Your task to perform on an android device: Set the phone to "Do not disturb". Image 0: 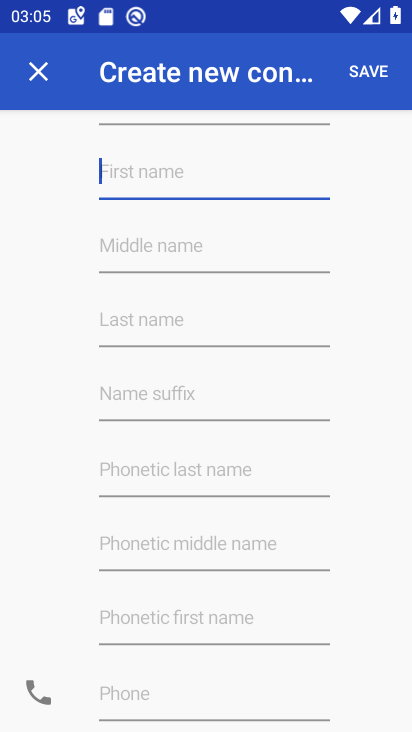
Step 0: press home button
Your task to perform on an android device: Set the phone to "Do not disturb". Image 1: 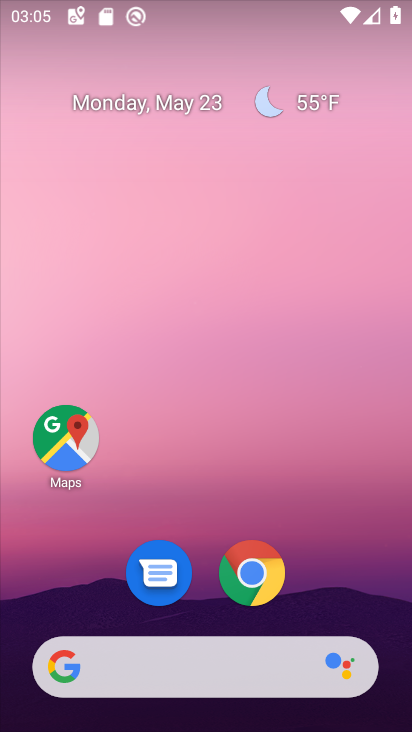
Step 1: drag from (320, 592) to (325, 23)
Your task to perform on an android device: Set the phone to "Do not disturb". Image 2: 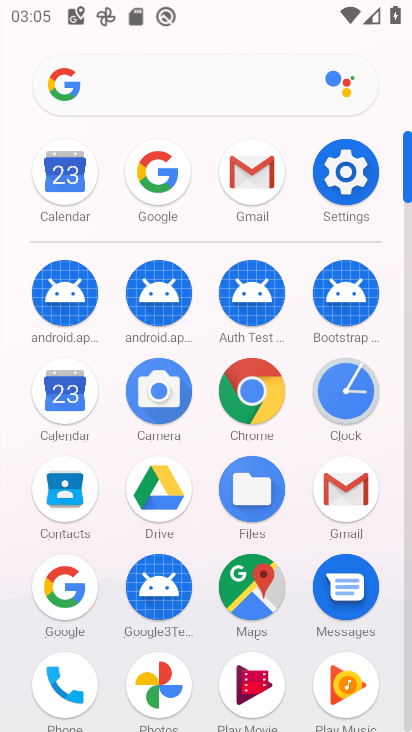
Step 2: click (344, 183)
Your task to perform on an android device: Set the phone to "Do not disturb". Image 3: 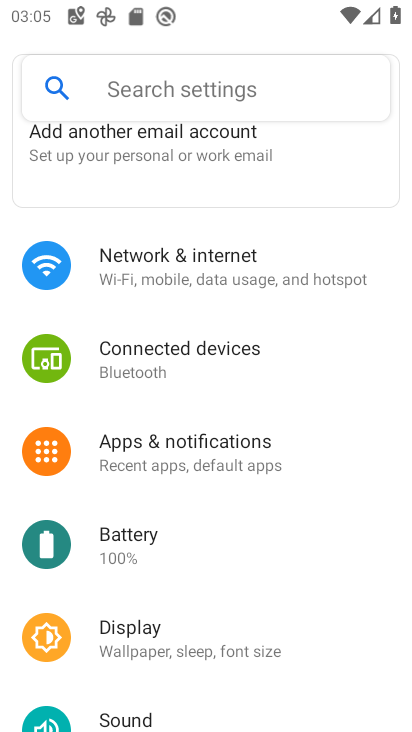
Step 3: click (162, 718)
Your task to perform on an android device: Set the phone to "Do not disturb". Image 4: 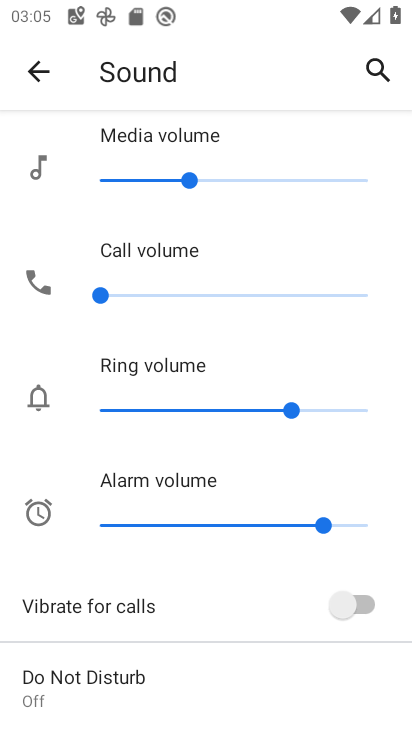
Step 4: drag from (239, 648) to (257, 388)
Your task to perform on an android device: Set the phone to "Do not disturb". Image 5: 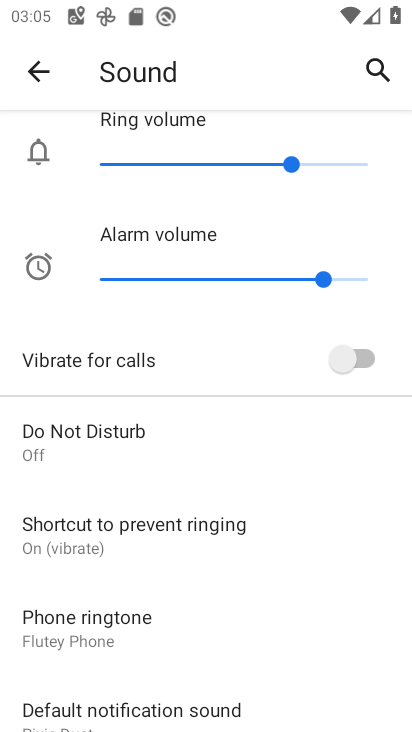
Step 5: click (127, 433)
Your task to perform on an android device: Set the phone to "Do not disturb". Image 6: 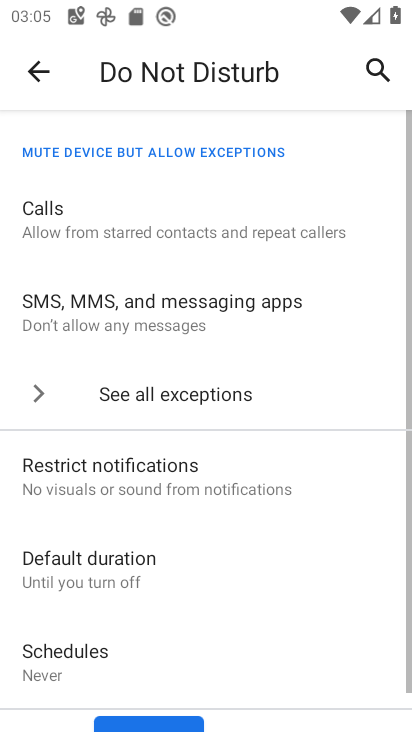
Step 6: drag from (290, 618) to (296, 313)
Your task to perform on an android device: Set the phone to "Do not disturb". Image 7: 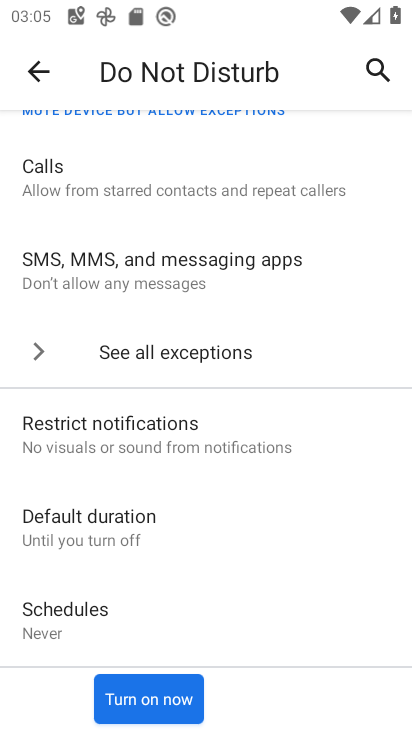
Step 7: click (161, 690)
Your task to perform on an android device: Set the phone to "Do not disturb". Image 8: 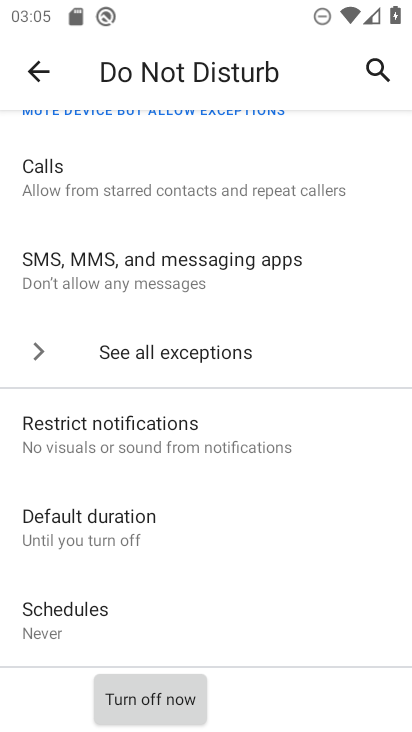
Step 8: task complete